Your task to perform on an android device: Google the capital of Venezuela Image 0: 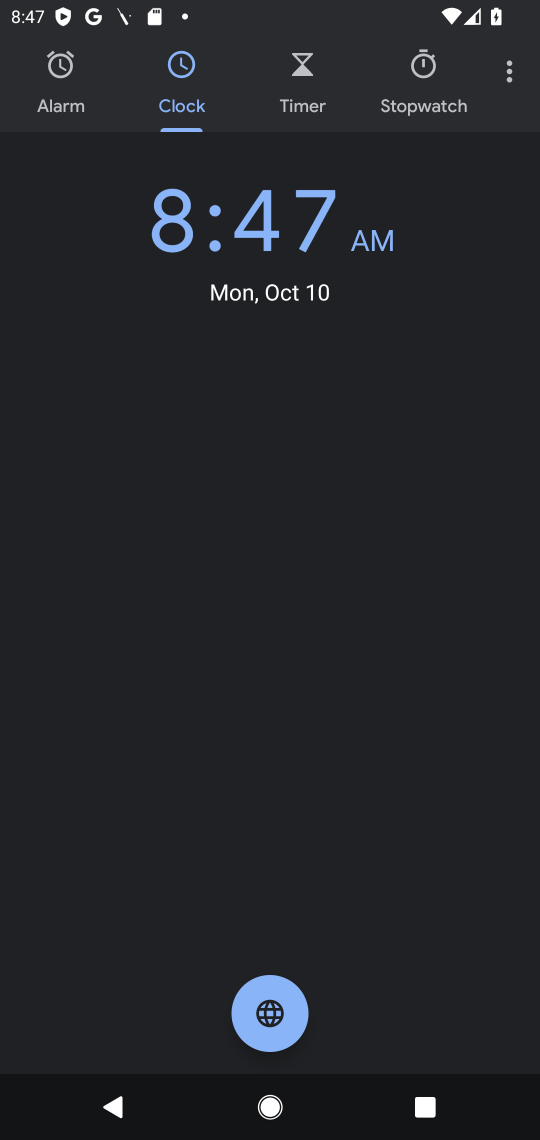
Step 0: press home button
Your task to perform on an android device: Google the capital of Venezuela Image 1: 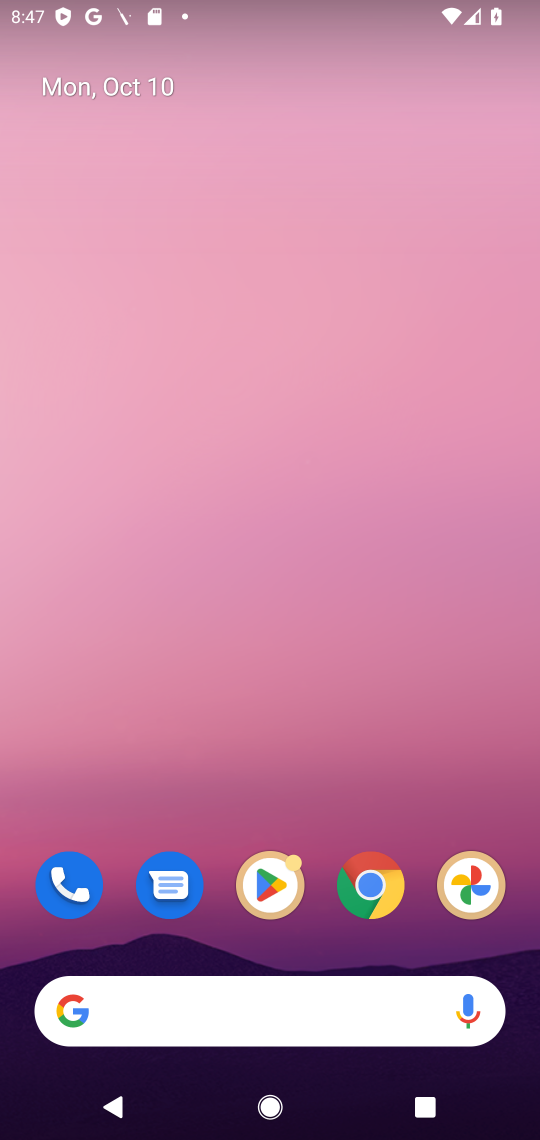
Step 1: click (264, 1003)
Your task to perform on an android device: Google the capital of Venezuela Image 2: 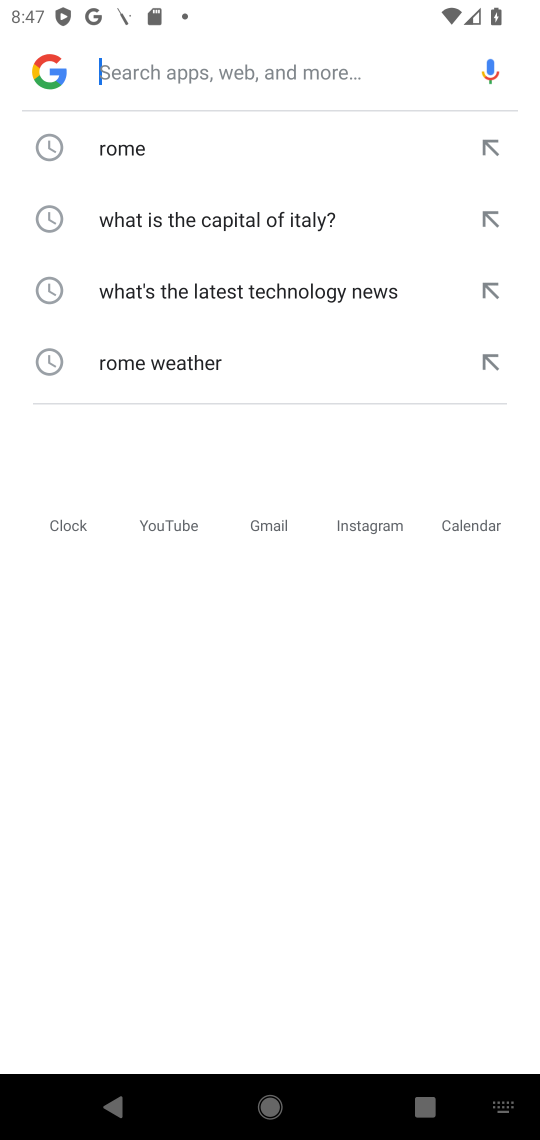
Step 2: type "the capital of Venezuela"
Your task to perform on an android device: Google the capital of Venezuela Image 3: 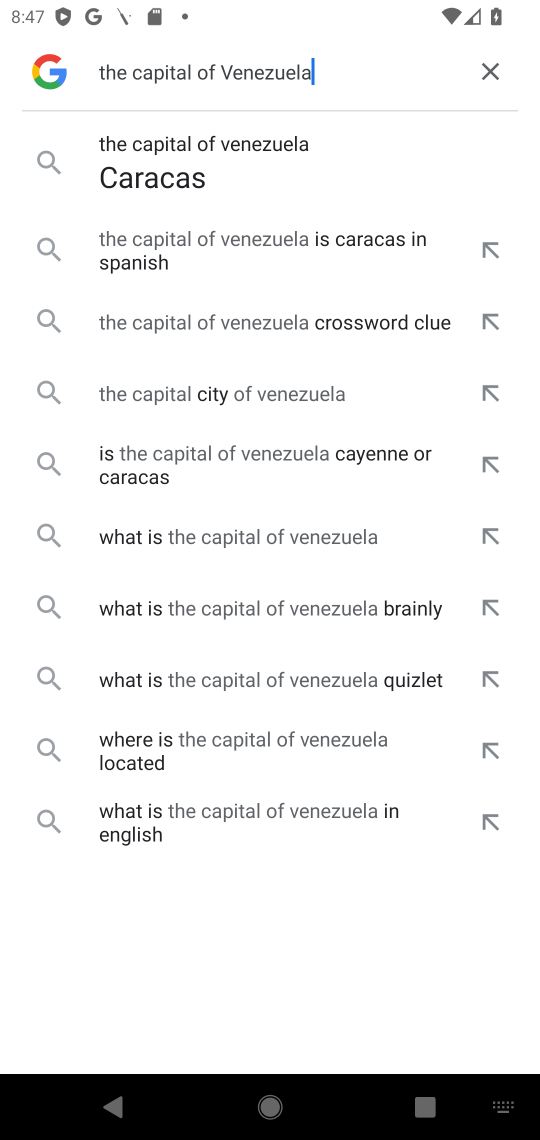
Step 3: click (227, 147)
Your task to perform on an android device: Google the capital of Venezuela Image 4: 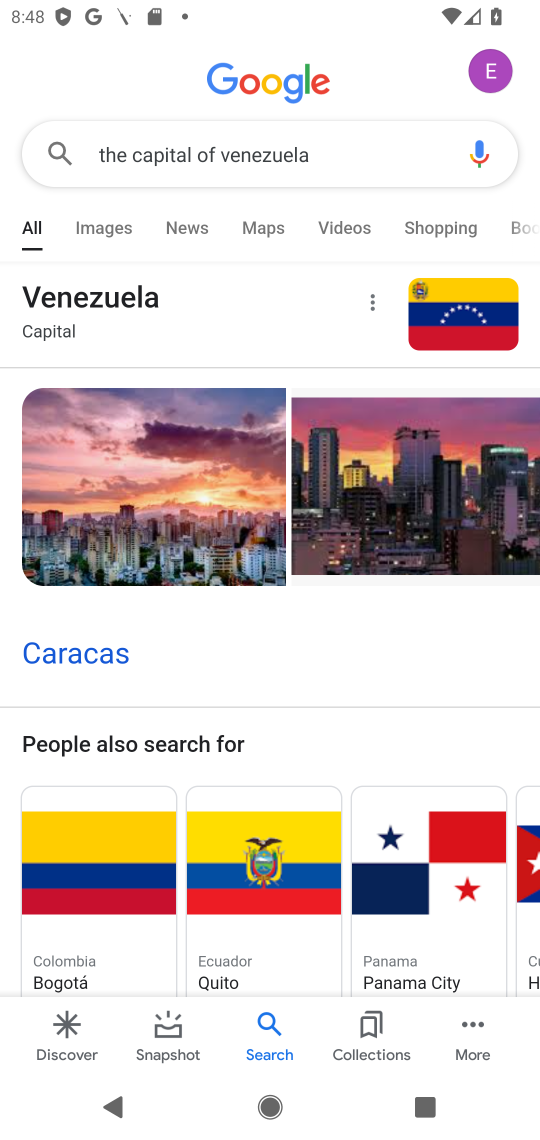
Step 4: task complete